Your task to perform on an android device: Turn on the flashlight Image 0: 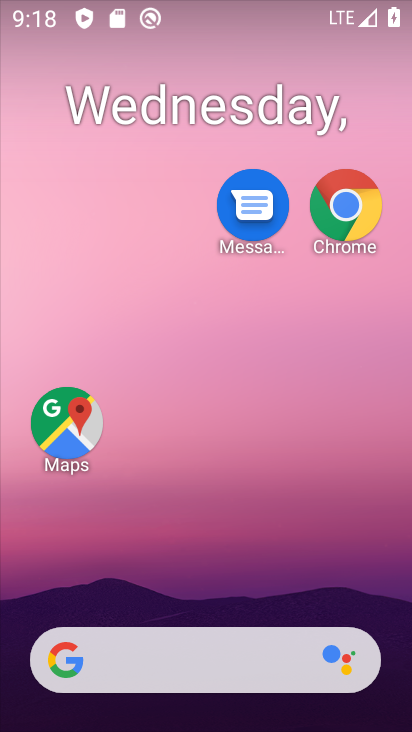
Step 0: drag from (182, 588) to (320, 125)
Your task to perform on an android device: Turn on the flashlight Image 1: 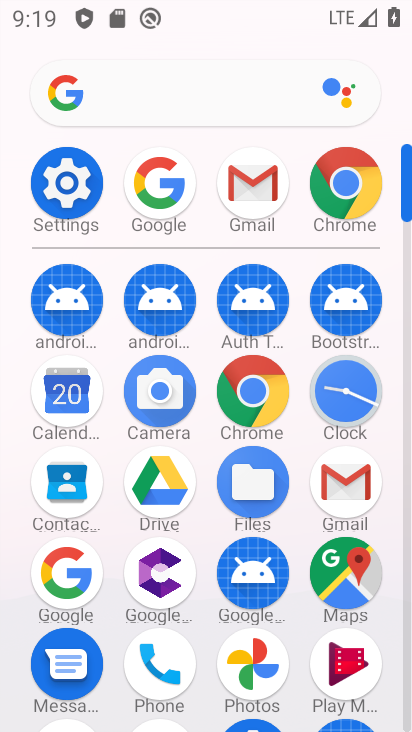
Step 1: click (76, 193)
Your task to perform on an android device: Turn on the flashlight Image 2: 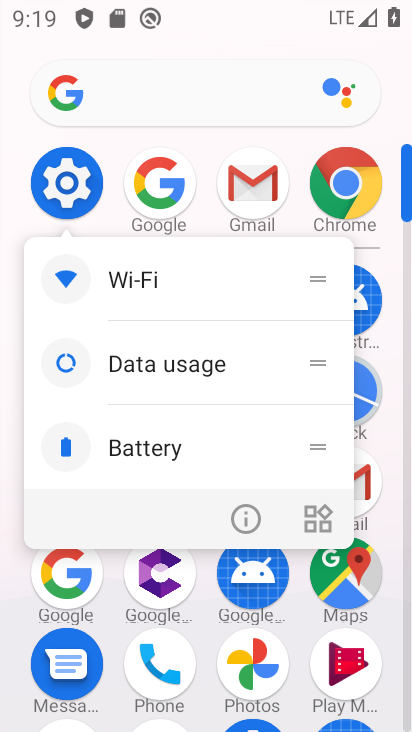
Step 2: click (234, 497)
Your task to perform on an android device: Turn on the flashlight Image 3: 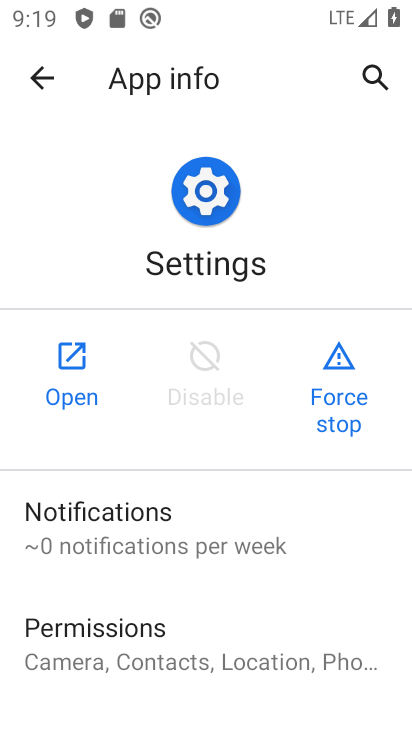
Step 3: click (79, 372)
Your task to perform on an android device: Turn on the flashlight Image 4: 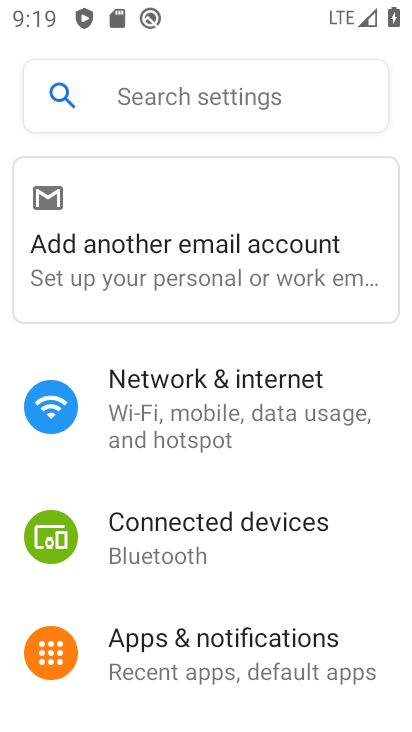
Step 4: click (146, 88)
Your task to perform on an android device: Turn on the flashlight Image 5: 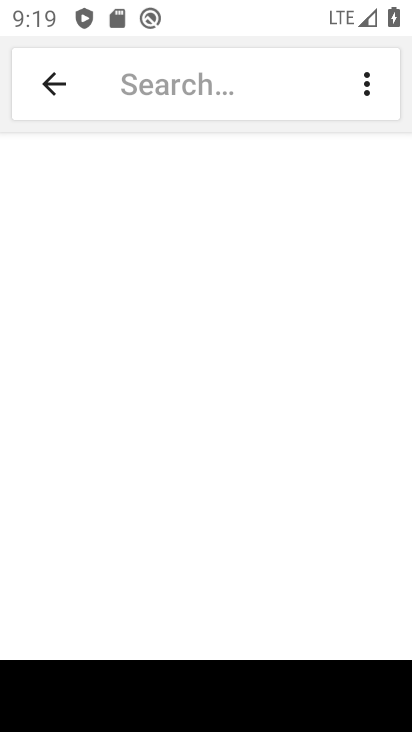
Step 5: type "flashlight"
Your task to perform on an android device: Turn on the flashlight Image 6: 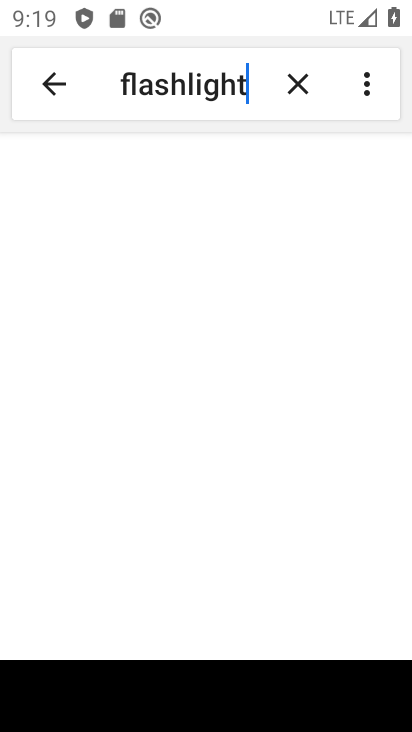
Step 6: type ""
Your task to perform on an android device: Turn on the flashlight Image 7: 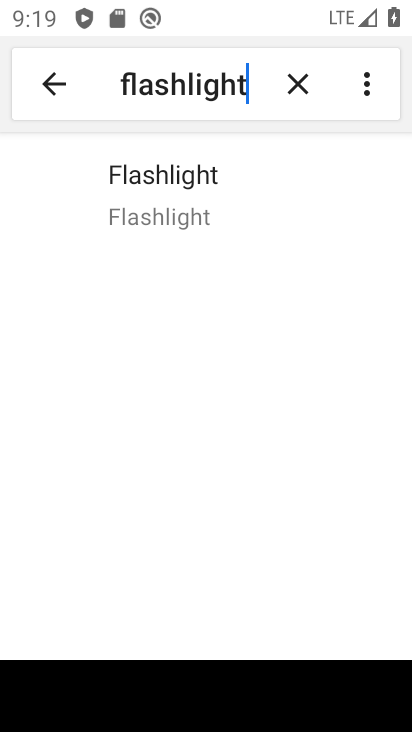
Step 7: click (261, 181)
Your task to perform on an android device: Turn on the flashlight Image 8: 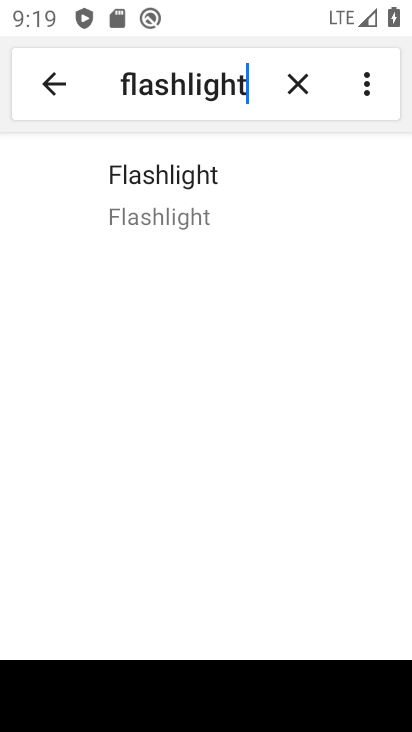
Step 8: click (234, 172)
Your task to perform on an android device: Turn on the flashlight Image 9: 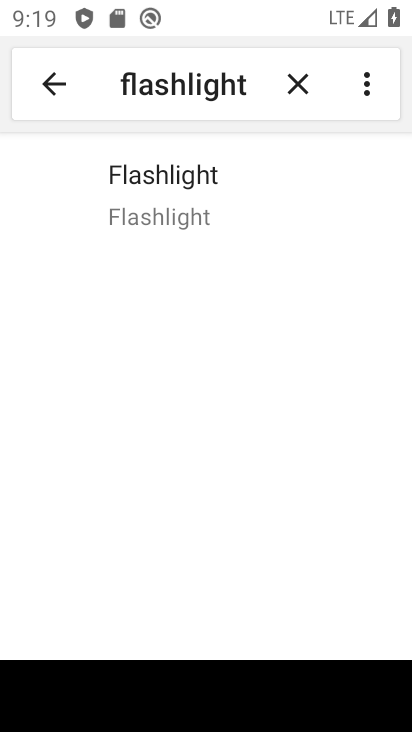
Step 9: click (273, 202)
Your task to perform on an android device: Turn on the flashlight Image 10: 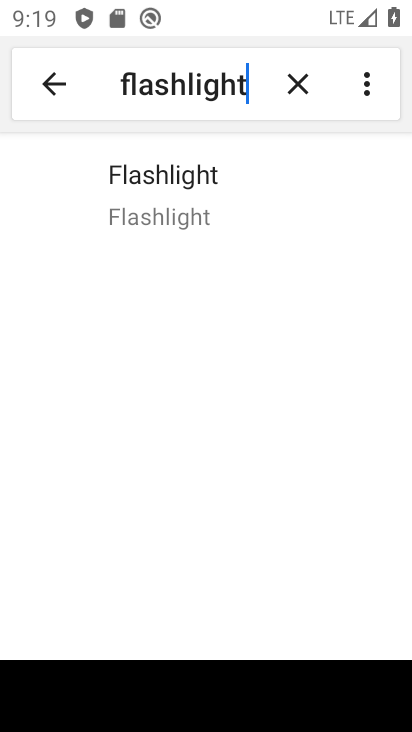
Step 10: click (223, 195)
Your task to perform on an android device: Turn on the flashlight Image 11: 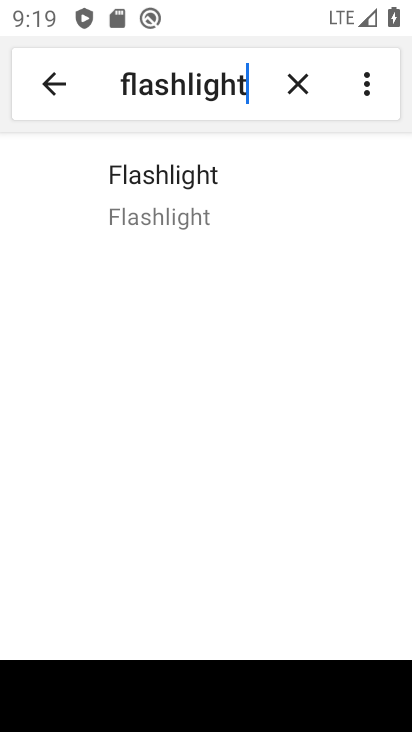
Step 11: click (151, 181)
Your task to perform on an android device: Turn on the flashlight Image 12: 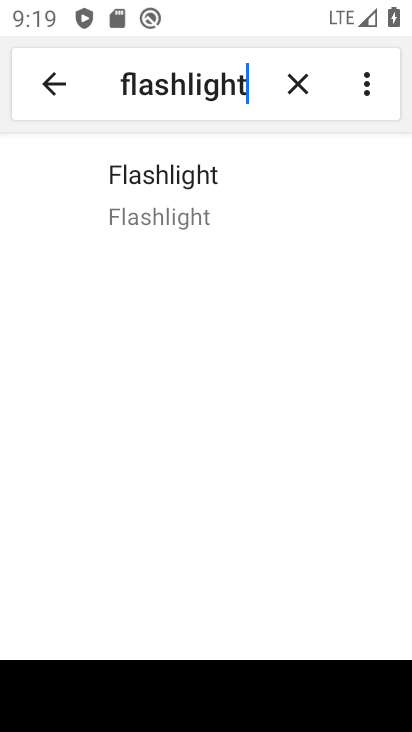
Step 12: task complete